Your task to perform on an android device: turn off location Image 0: 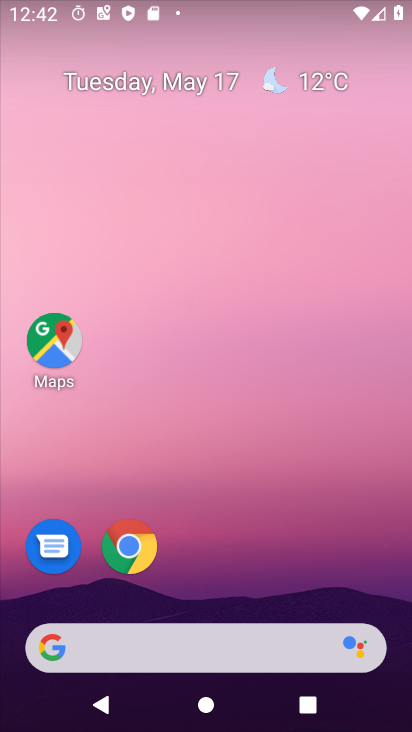
Step 0: press home button
Your task to perform on an android device: turn off location Image 1: 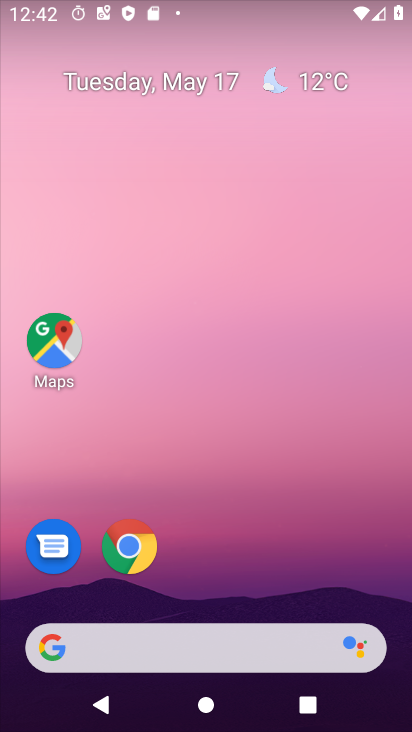
Step 1: drag from (207, 604) to (315, 240)
Your task to perform on an android device: turn off location Image 2: 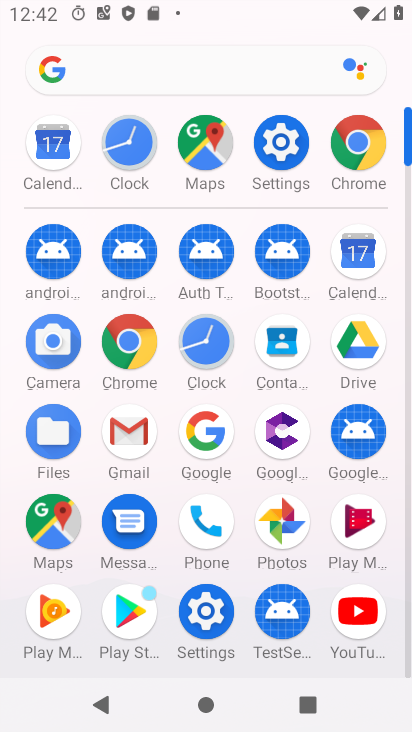
Step 2: click (282, 150)
Your task to perform on an android device: turn off location Image 3: 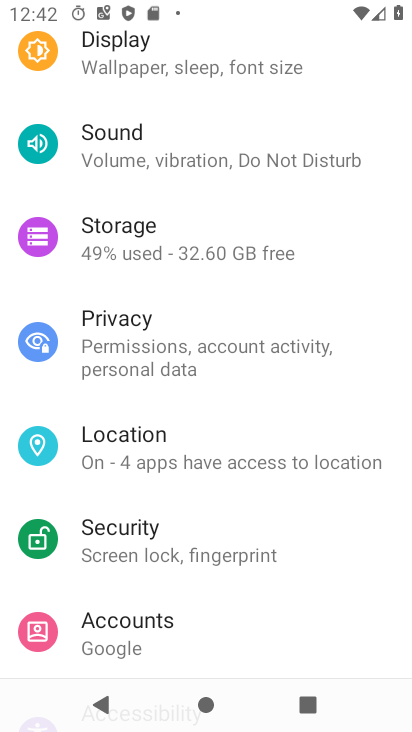
Step 3: click (122, 442)
Your task to perform on an android device: turn off location Image 4: 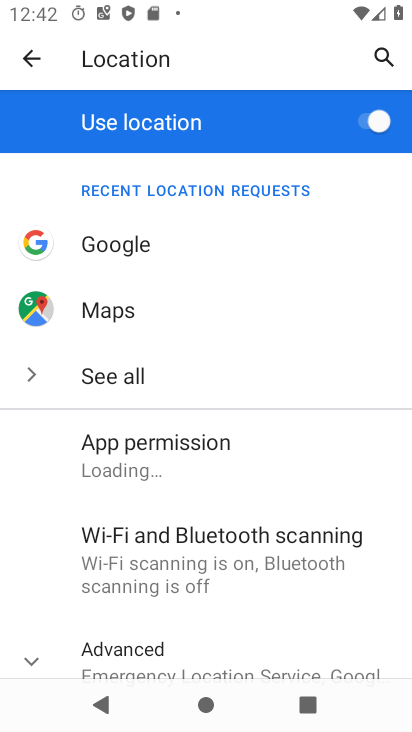
Step 4: click (363, 133)
Your task to perform on an android device: turn off location Image 5: 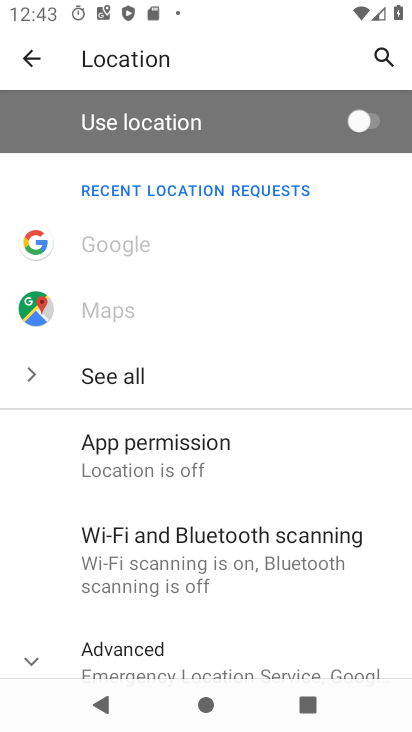
Step 5: task complete